Your task to perform on an android device: uninstall "Google Find My Device" Image 0: 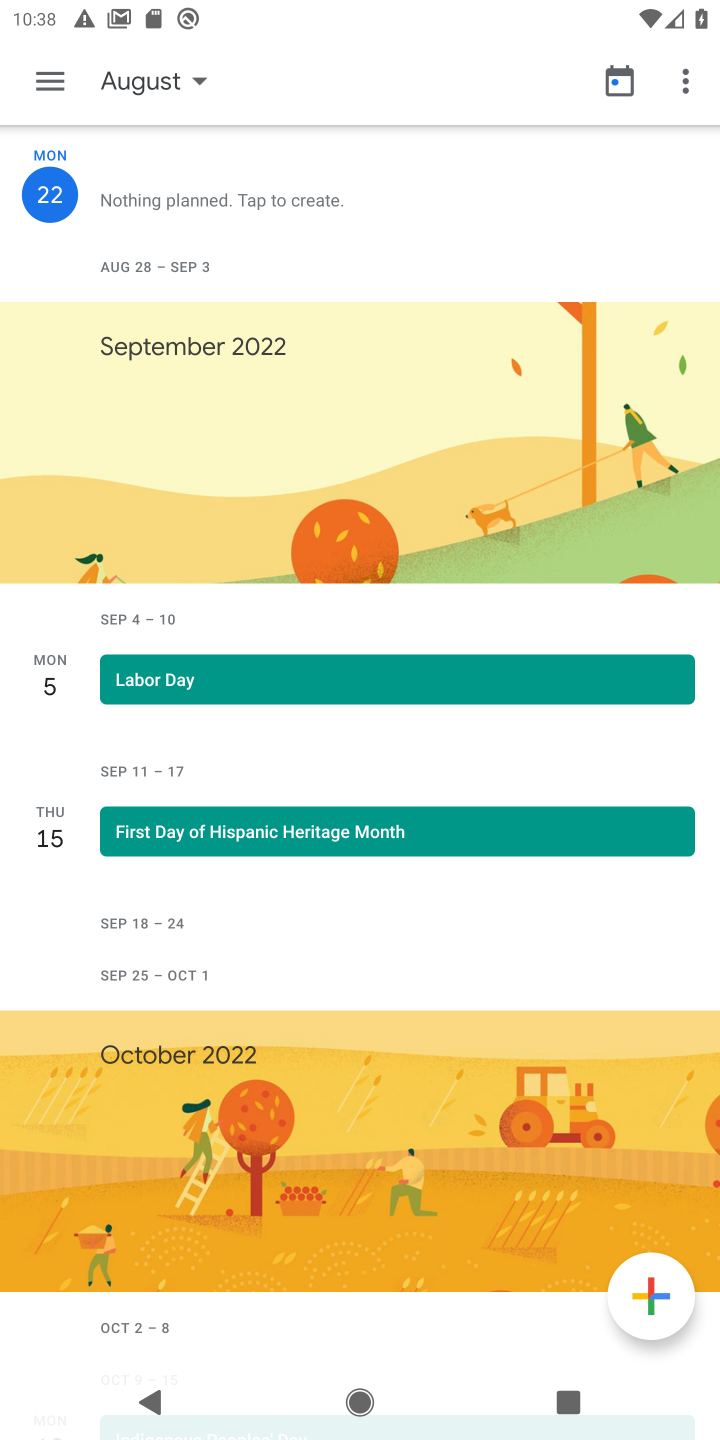
Step 0: press back button
Your task to perform on an android device: uninstall "Google Find My Device" Image 1: 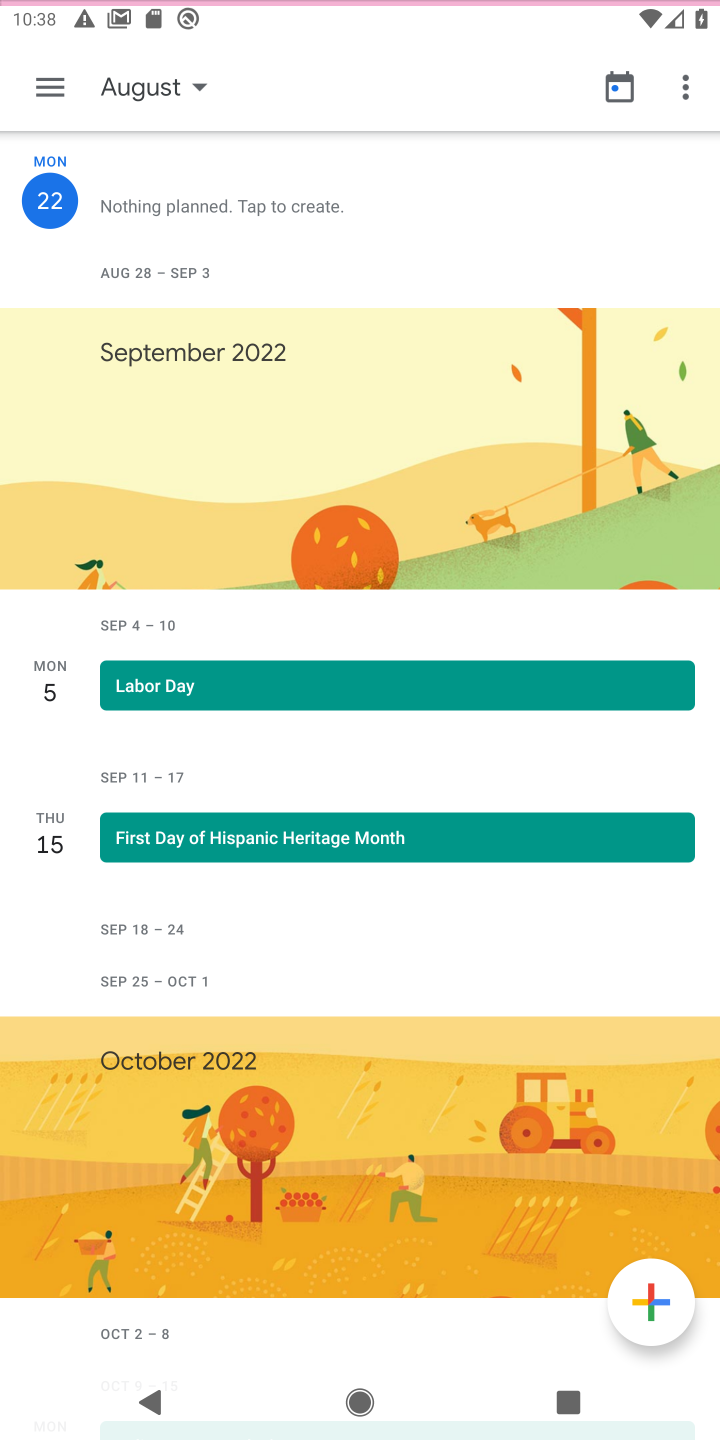
Step 1: press home button
Your task to perform on an android device: uninstall "Google Find My Device" Image 2: 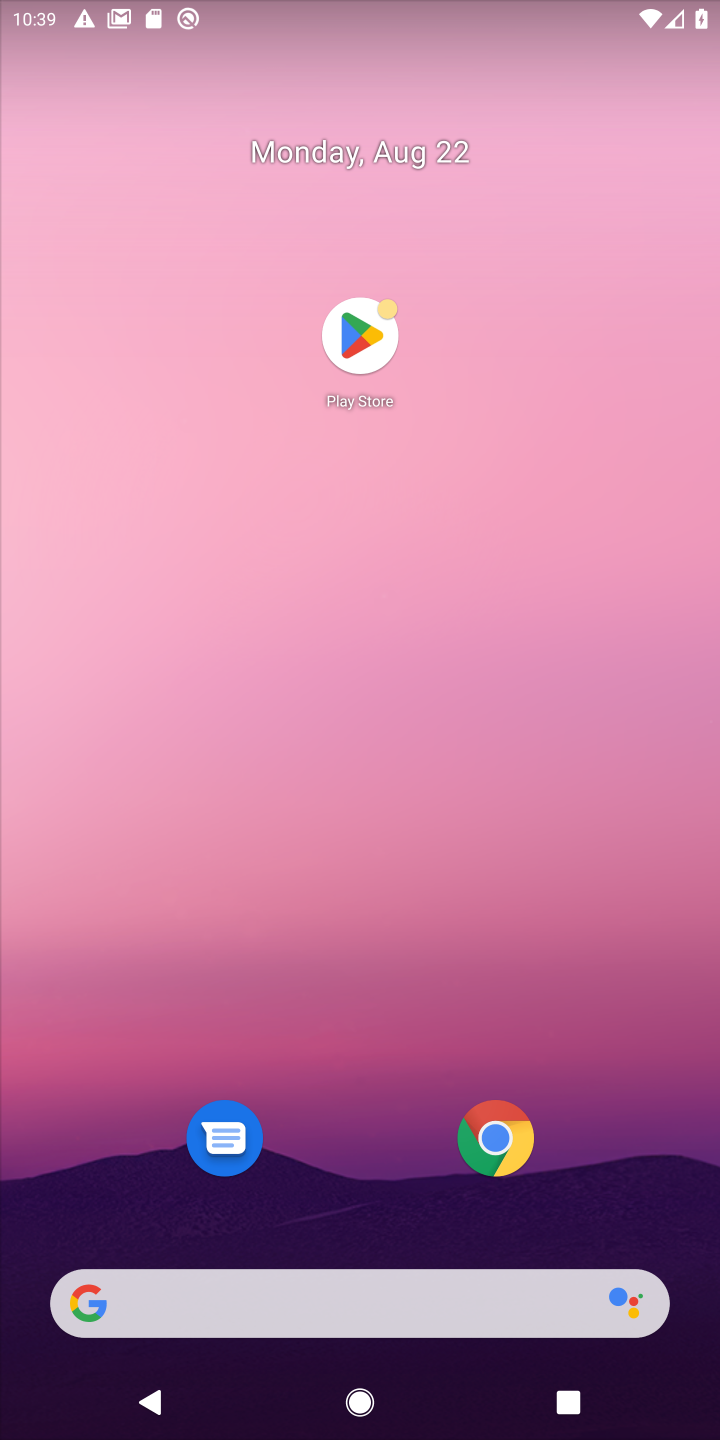
Step 2: click (351, 337)
Your task to perform on an android device: uninstall "Google Find My Device" Image 3: 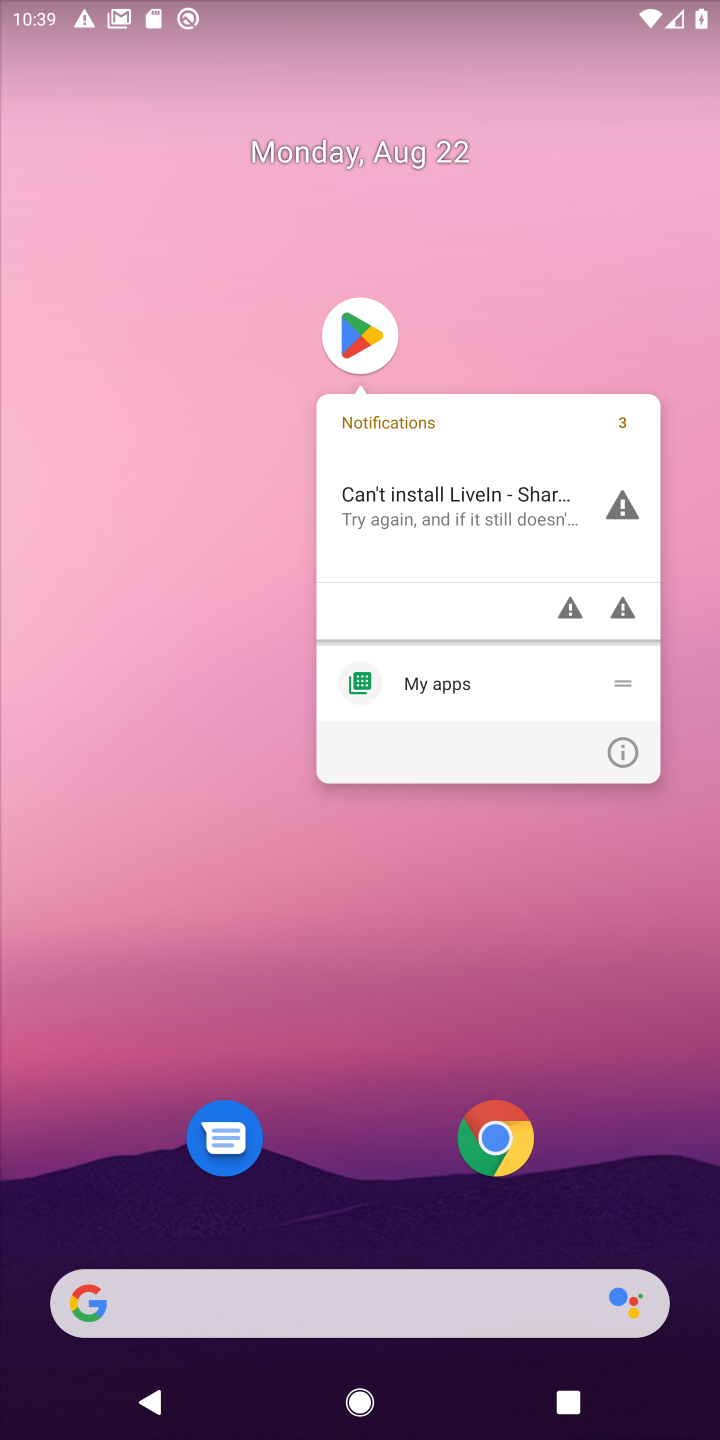
Step 3: click (360, 325)
Your task to perform on an android device: uninstall "Google Find My Device" Image 4: 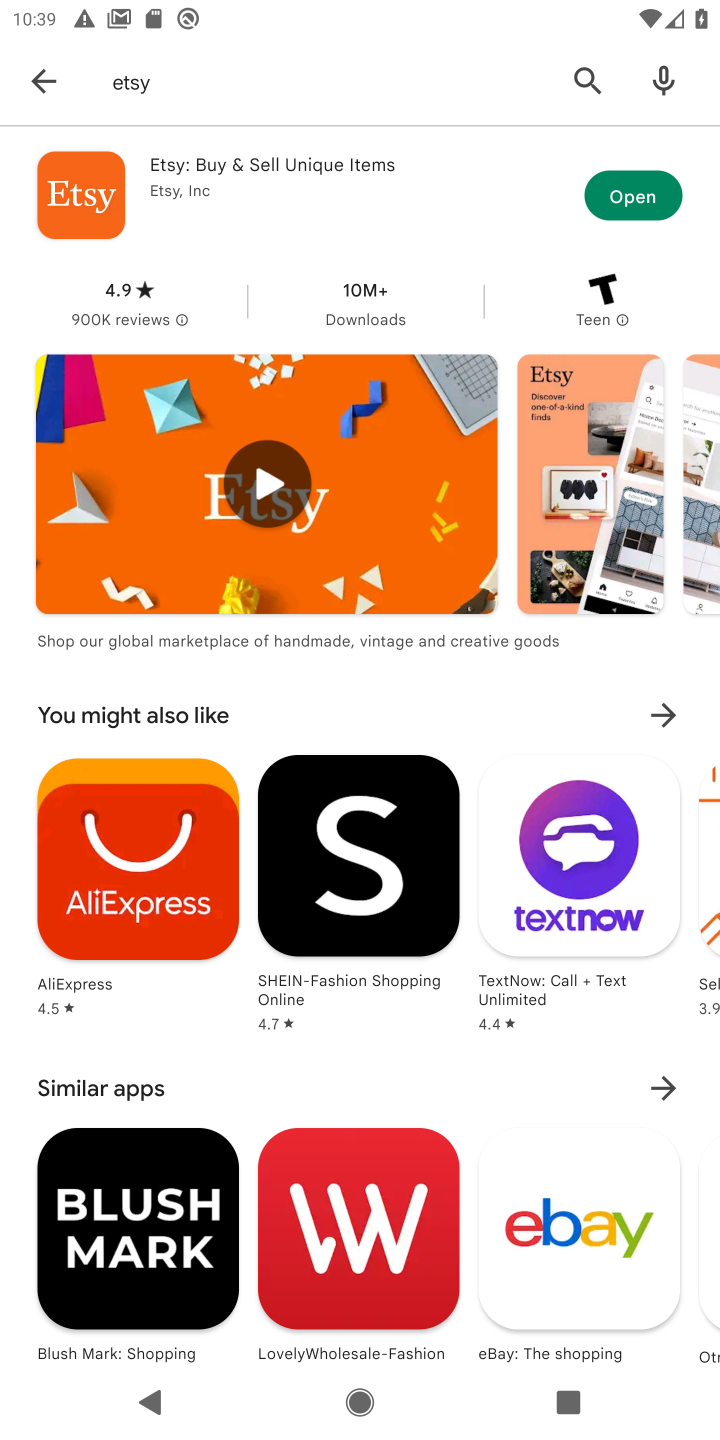
Step 4: click (583, 74)
Your task to perform on an android device: uninstall "Google Find My Device" Image 5: 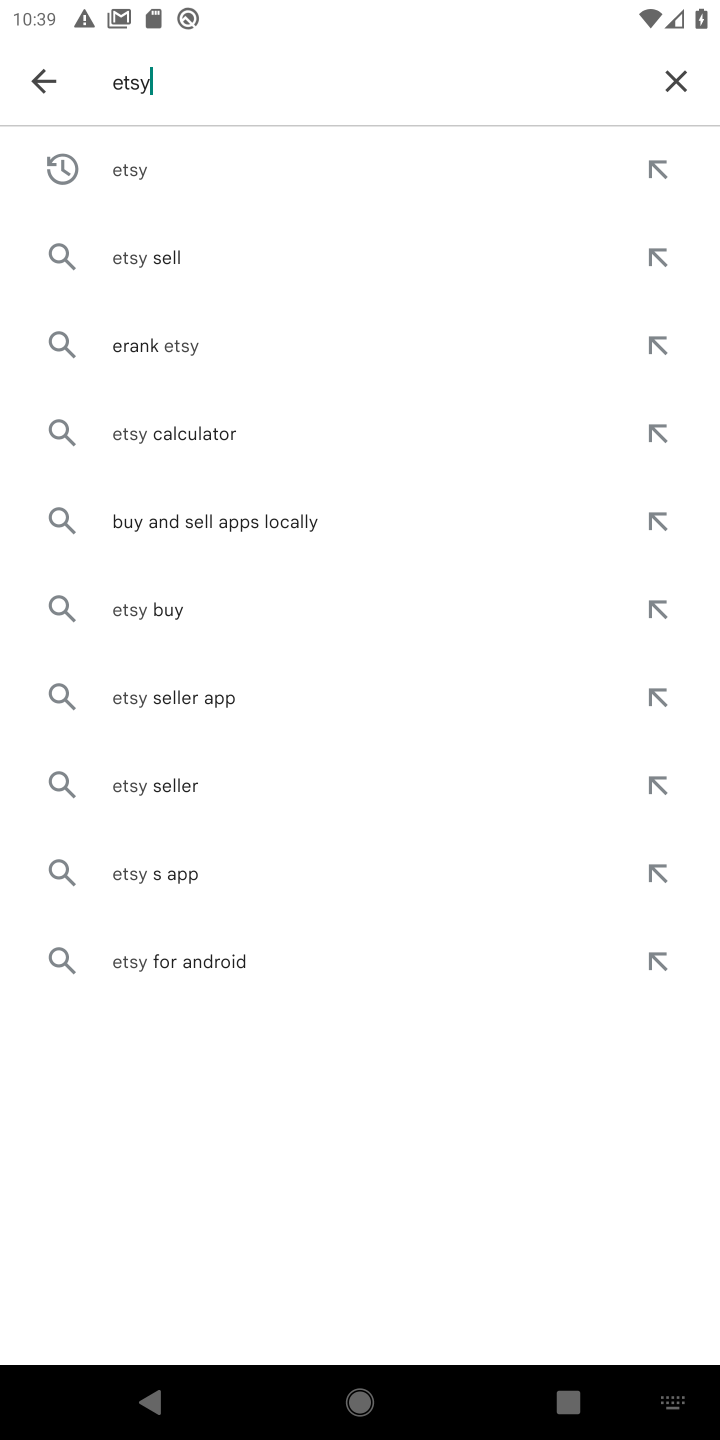
Step 5: click (682, 79)
Your task to perform on an android device: uninstall "Google Find My Device" Image 6: 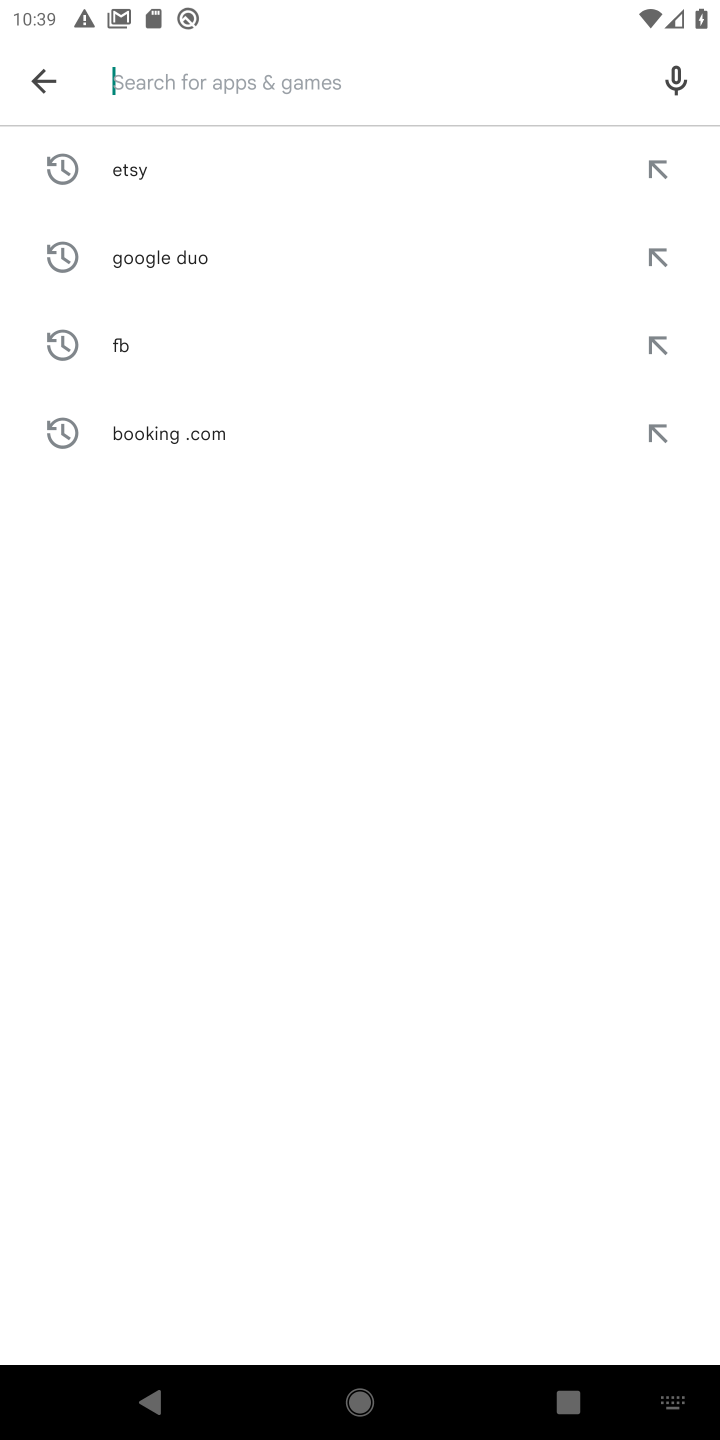
Step 6: type "google find my device"
Your task to perform on an android device: uninstall "Google Find My Device" Image 7: 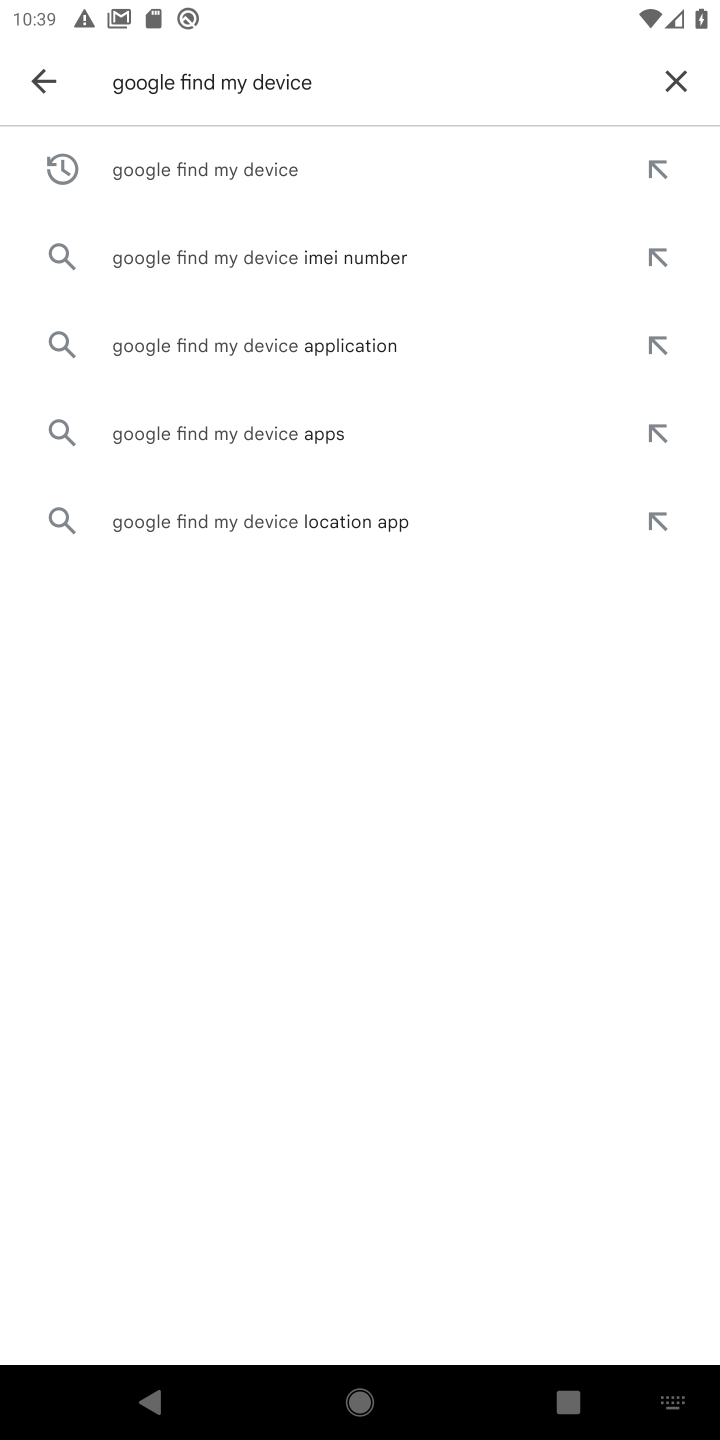
Step 7: click (186, 173)
Your task to perform on an android device: uninstall "Google Find My Device" Image 8: 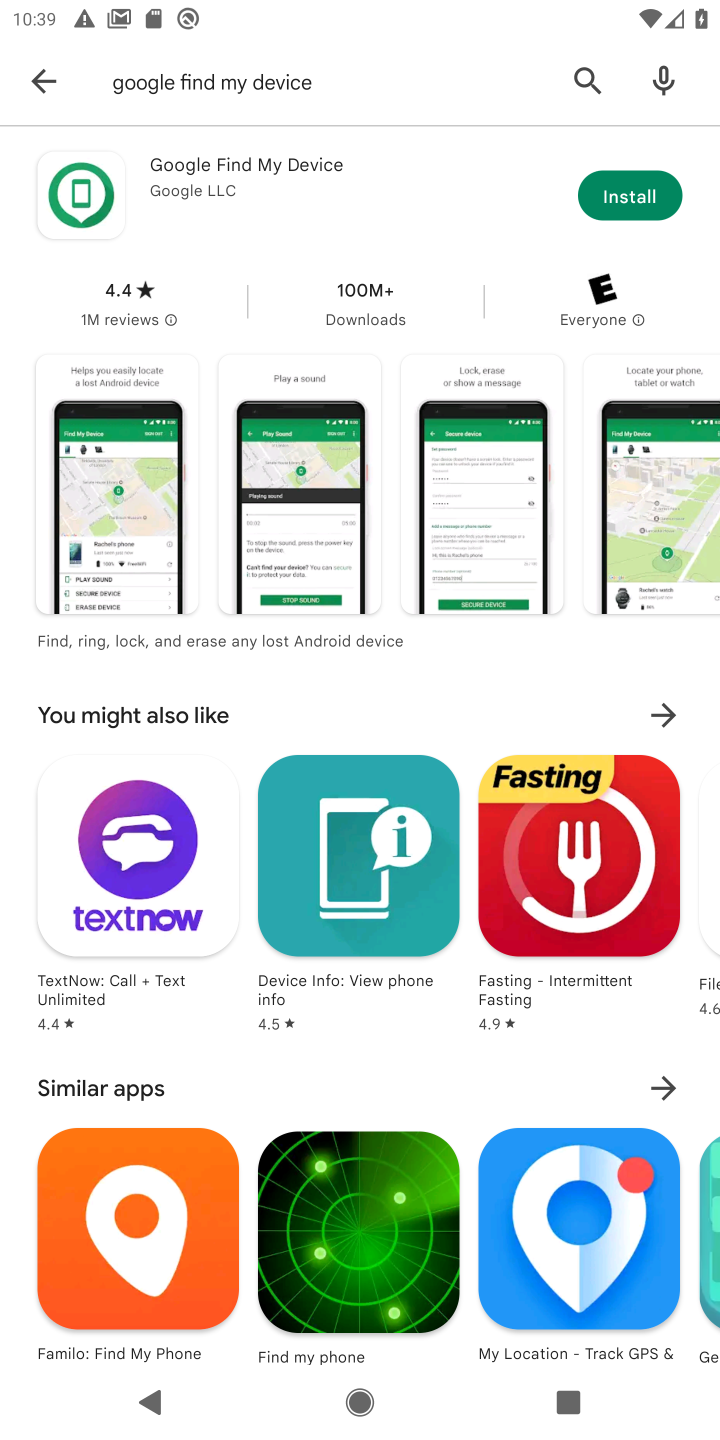
Step 8: task complete